Your task to perform on an android device: Open settings on Google Maps Image 0: 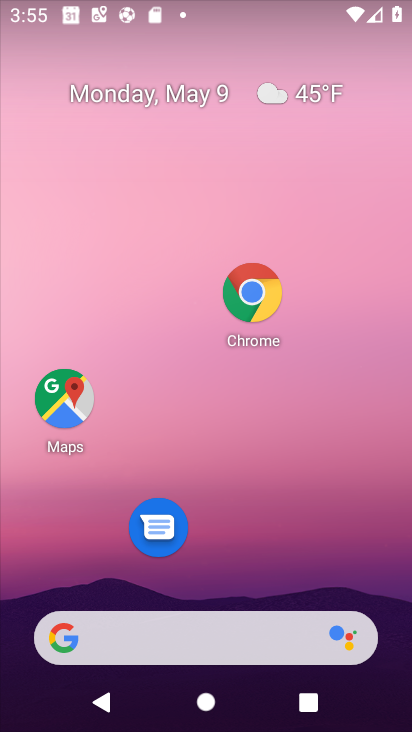
Step 0: drag from (335, 524) to (342, 238)
Your task to perform on an android device: Open settings on Google Maps Image 1: 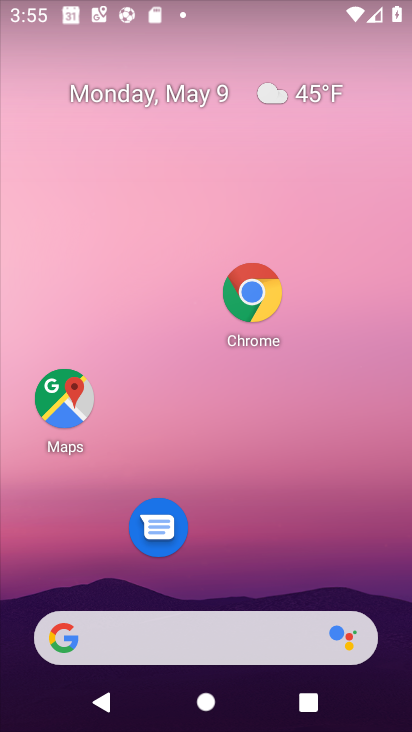
Step 1: click (51, 418)
Your task to perform on an android device: Open settings on Google Maps Image 2: 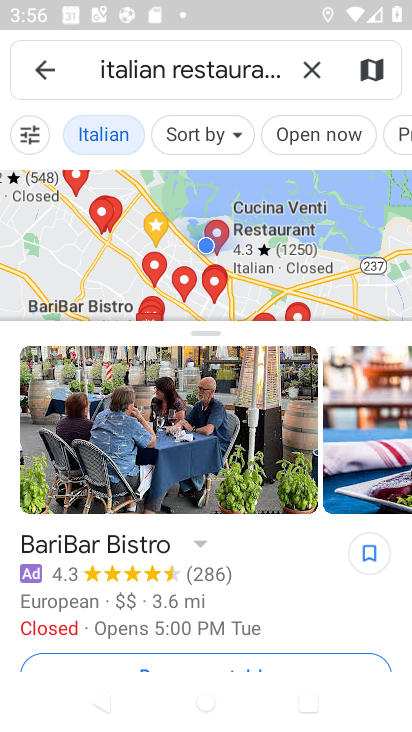
Step 2: click (39, 73)
Your task to perform on an android device: Open settings on Google Maps Image 3: 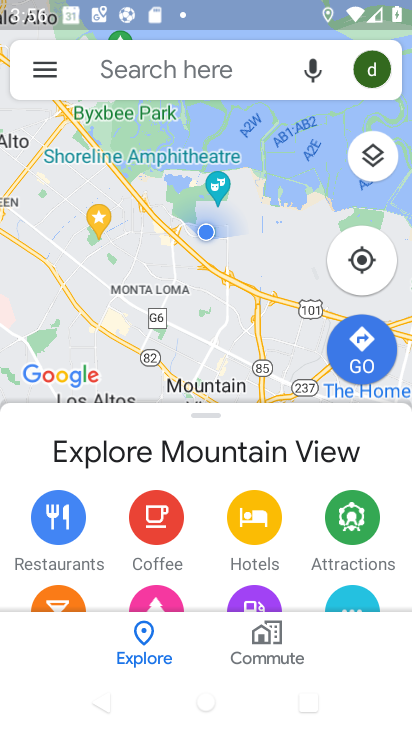
Step 3: click (39, 73)
Your task to perform on an android device: Open settings on Google Maps Image 4: 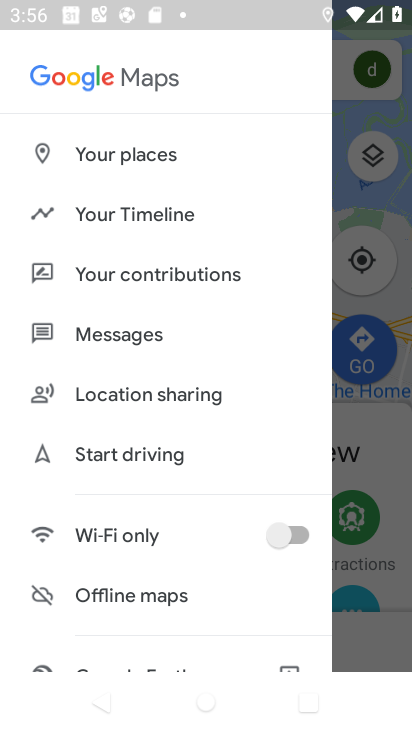
Step 4: drag from (116, 477) to (138, 294)
Your task to perform on an android device: Open settings on Google Maps Image 5: 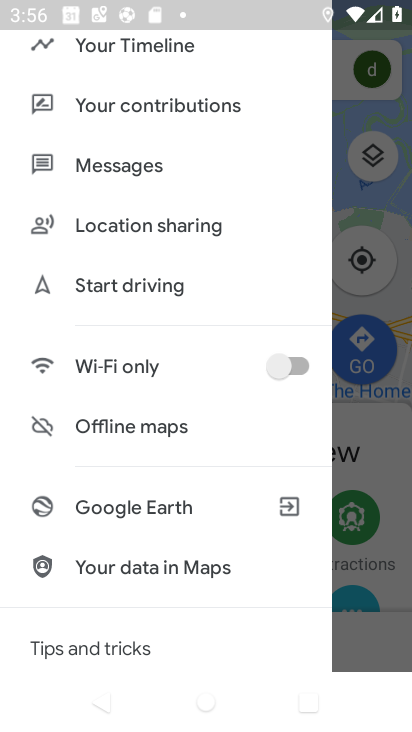
Step 5: drag from (149, 590) to (177, 260)
Your task to perform on an android device: Open settings on Google Maps Image 6: 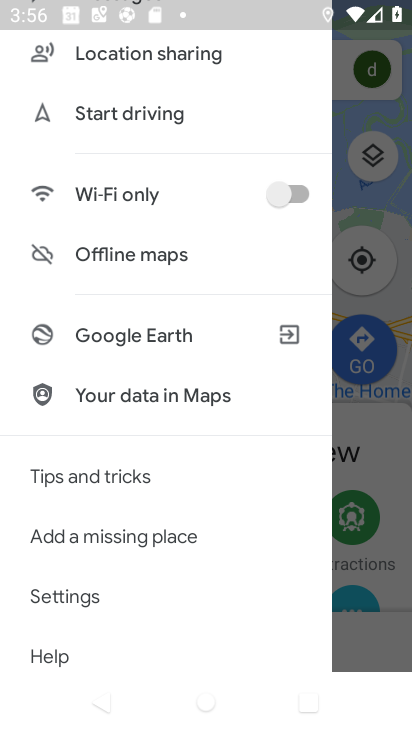
Step 6: click (111, 602)
Your task to perform on an android device: Open settings on Google Maps Image 7: 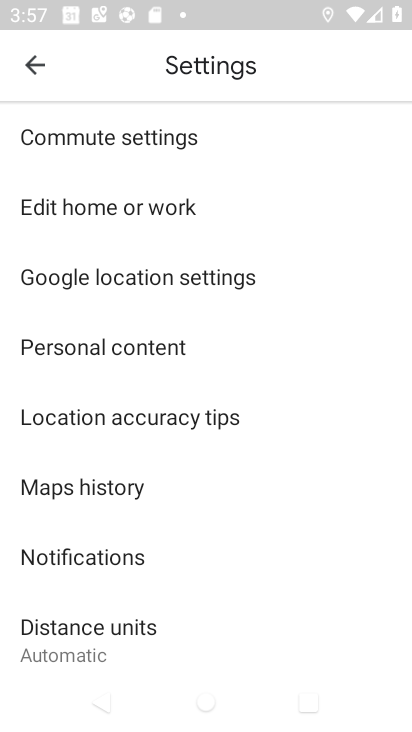
Step 7: task complete